Your task to perform on an android device: visit the assistant section in the google photos Image 0: 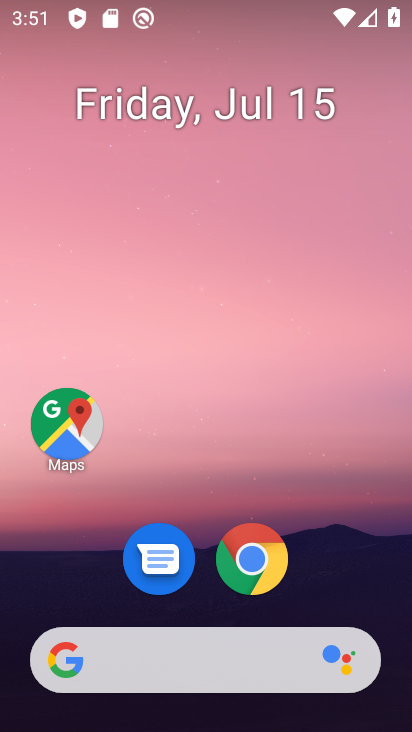
Step 0: drag from (87, 592) to (165, 2)
Your task to perform on an android device: visit the assistant section in the google photos Image 1: 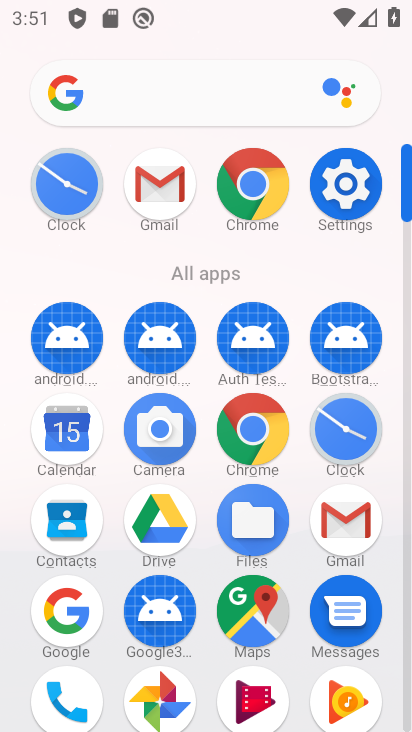
Step 1: click (162, 685)
Your task to perform on an android device: visit the assistant section in the google photos Image 2: 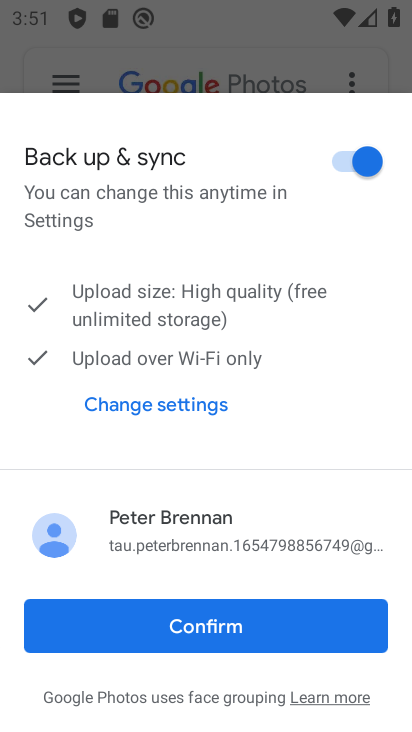
Step 2: click (264, 684)
Your task to perform on an android device: visit the assistant section in the google photos Image 3: 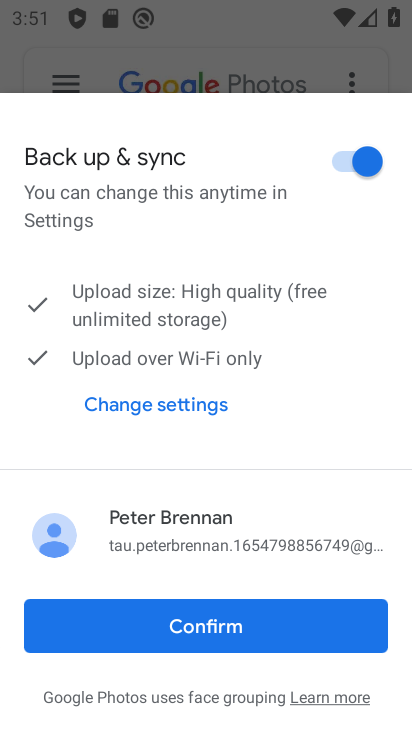
Step 3: click (218, 591)
Your task to perform on an android device: visit the assistant section in the google photos Image 4: 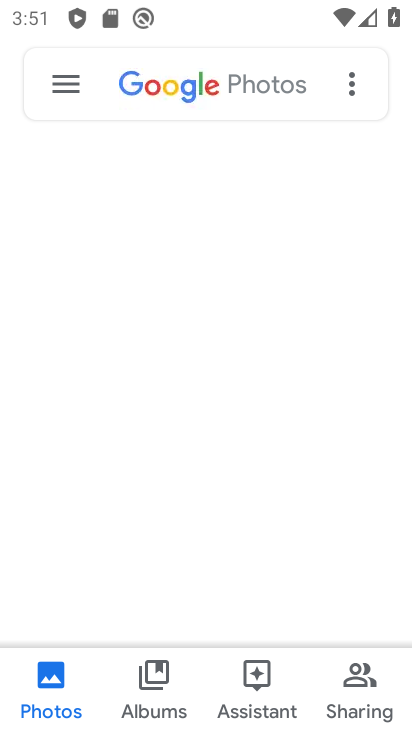
Step 4: click (210, 616)
Your task to perform on an android device: visit the assistant section in the google photos Image 5: 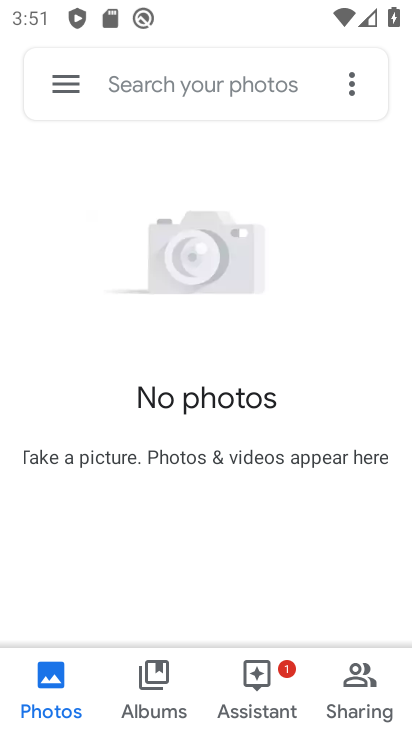
Step 5: click (265, 702)
Your task to perform on an android device: visit the assistant section in the google photos Image 6: 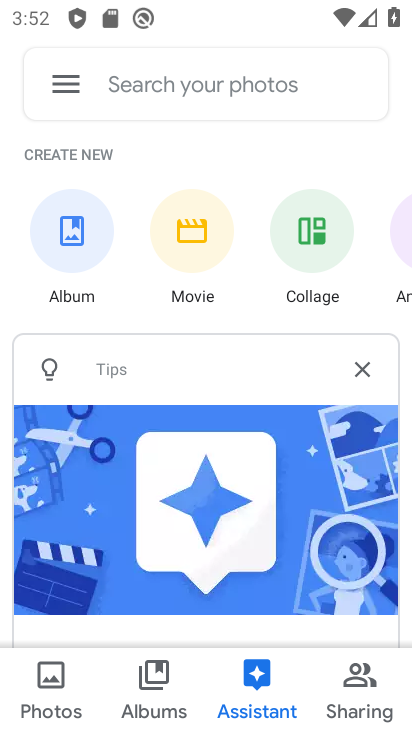
Step 6: task complete